Your task to perform on an android device: Open the calendar and show me this week's events? Image 0: 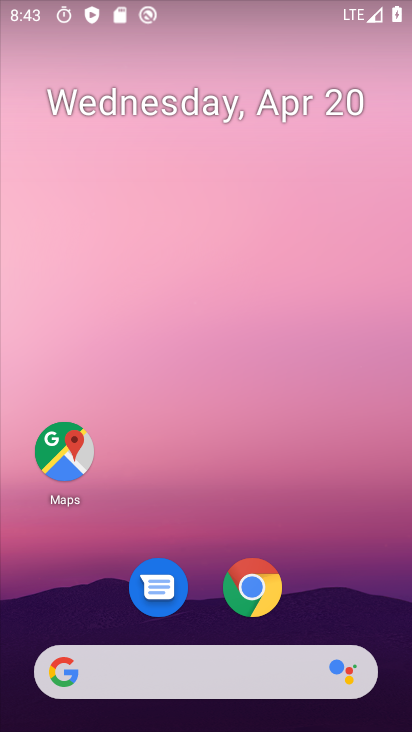
Step 0: drag from (356, 566) to (373, 210)
Your task to perform on an android device: Open the calendar and show me this week's events? Image 1: 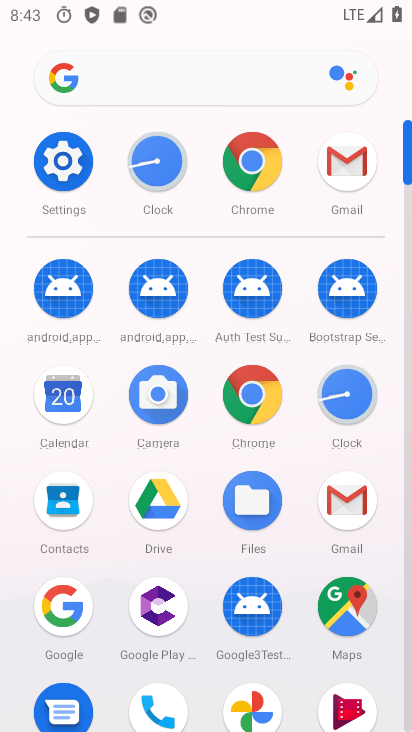
Step 1: click (83, 432)
Your task to perform on an android device: Open the calendar and show me this week's events? Image 2: 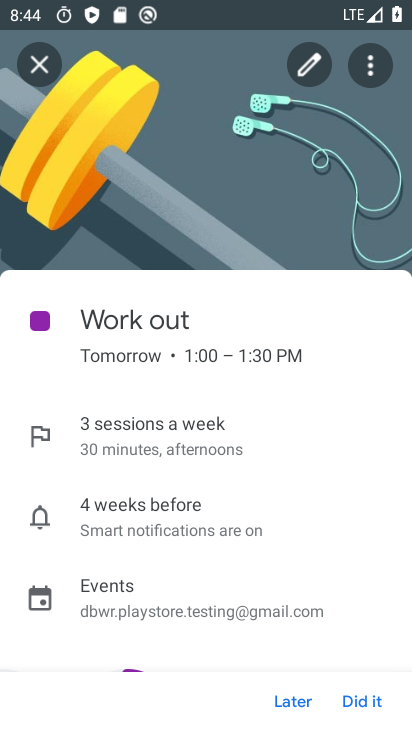
Step 2: click (40, 65)
Your task to perform on an android device: Open the calendar and show me this week's events? Image 3: 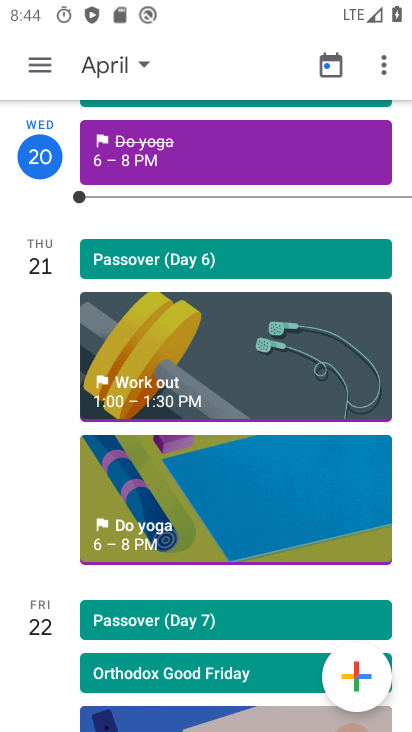
Step 3: click (143, 59)
Your task to perform on an android device: Open the calendar and show me this week's events? Image 4: 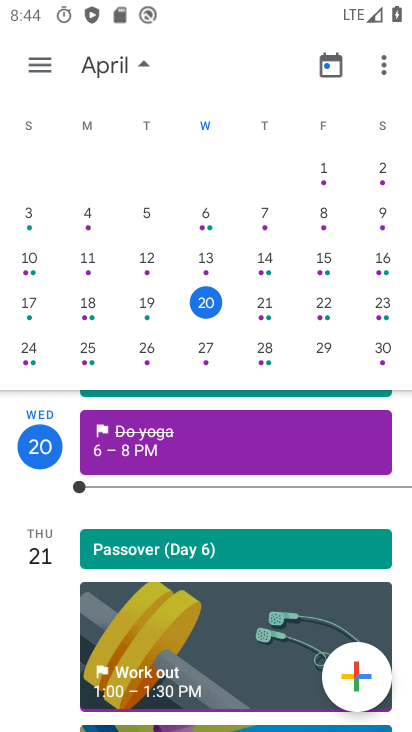
Step 4: click (213, 634)
Your task to perform on an android device: Open the calendar and show me this week's events? Image 5: 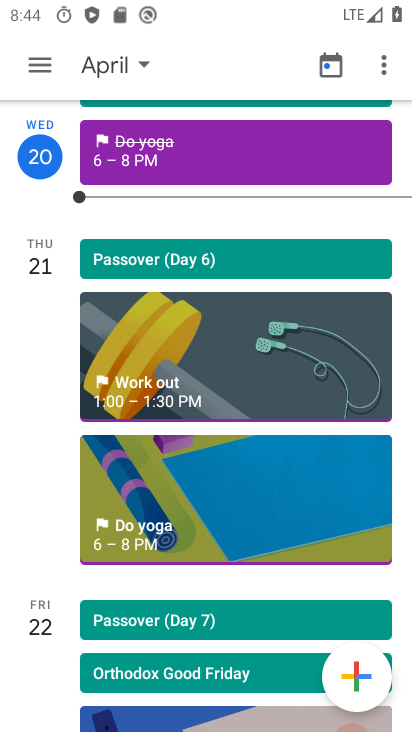
Step 5: task complete